Your task to perform on an android device: toggle location history Image 0: 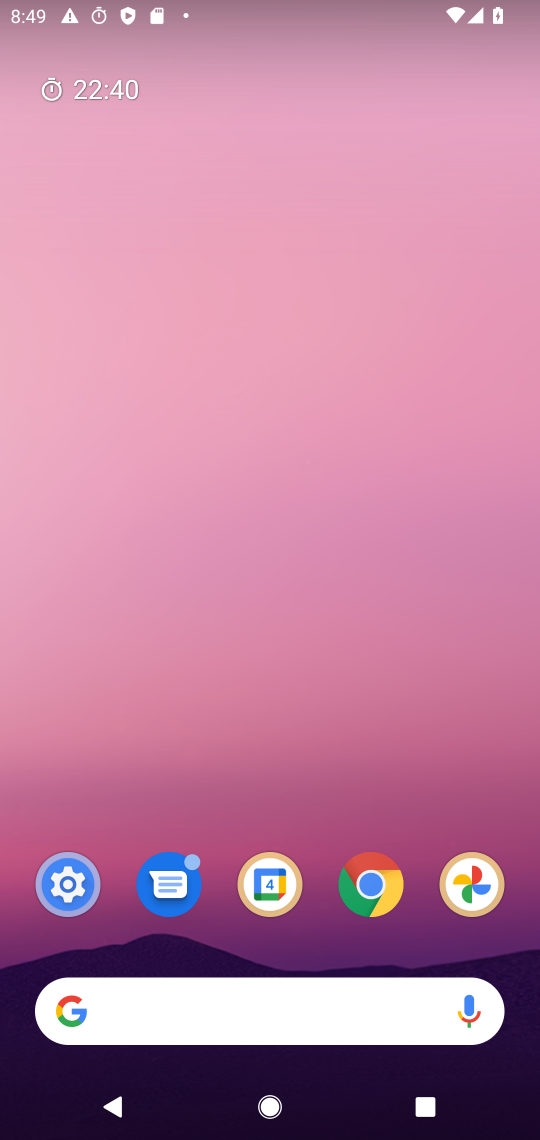
Step 0: drag from (291, 896) to (279, 266)
Your task to perform on an android device: toggle location history Image 1: 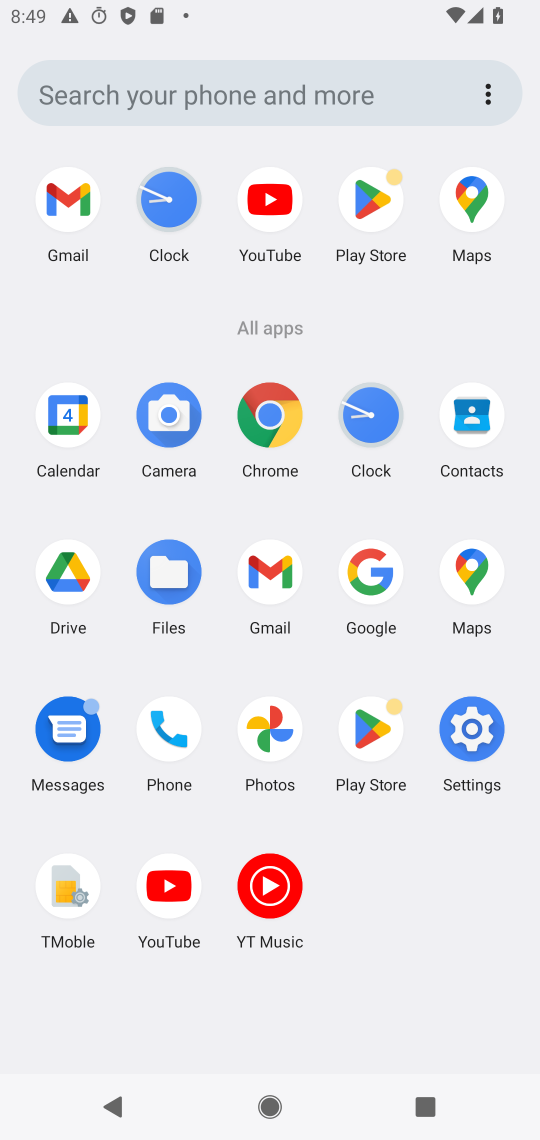
Step 1: click (472, 732)
Your task to perform on an android device: toggle location history Image 2: 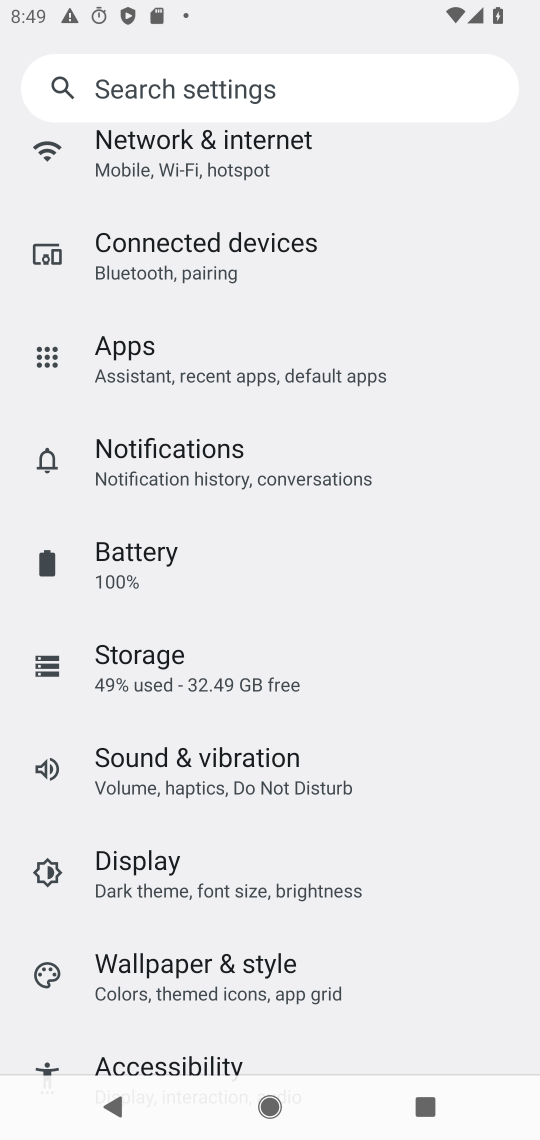
Step 2: drag from (433, 968) to (385, 417)
Your task to perform on an android device: toggle location history Image 3: 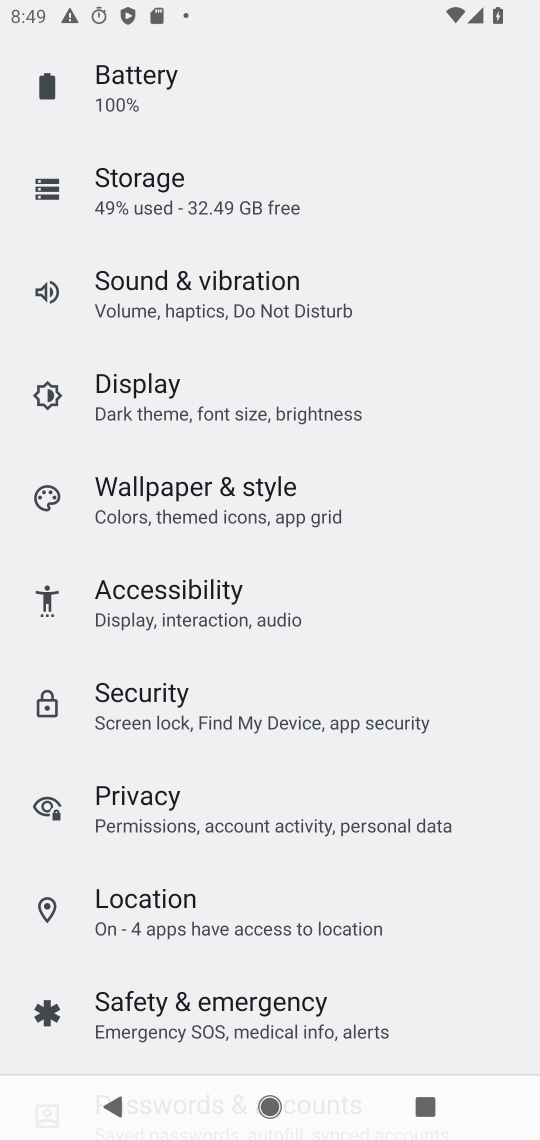
Step 3: click (187, 922)
Your task to perform on an android device: toggle location history Image 4: 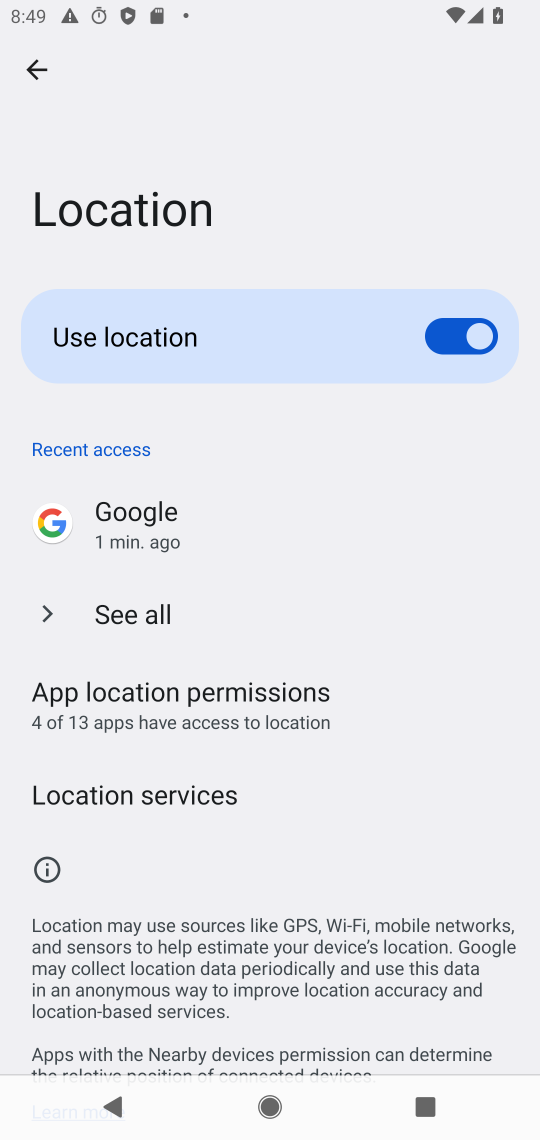
Step 4: click (145, 790)
Your task to perform on an android device: toggle location history Image 5: 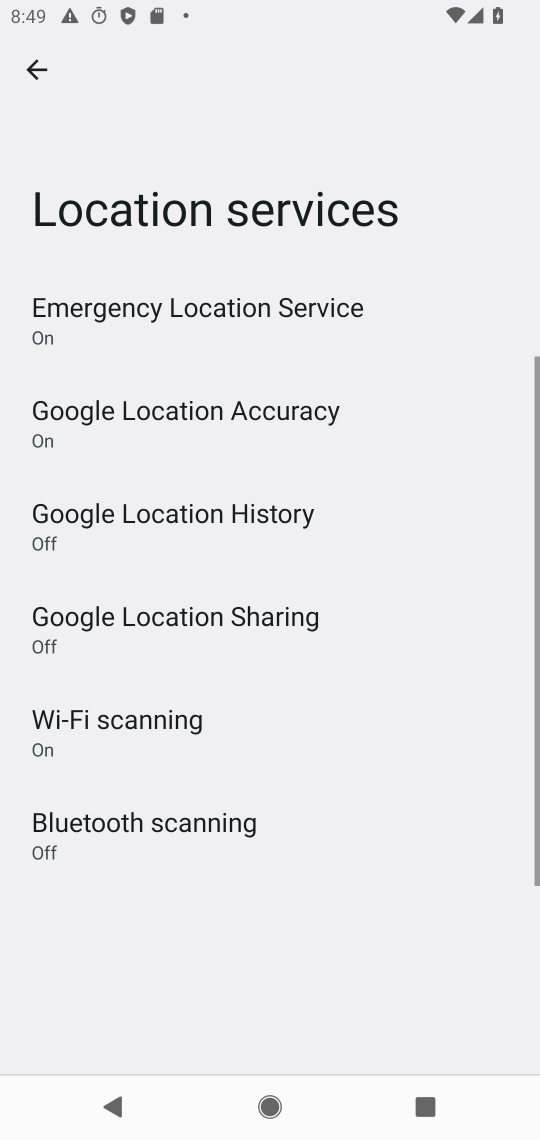
Step 5: click (206, 515)
Your task to perform on an android device: toggle location history Image 6: 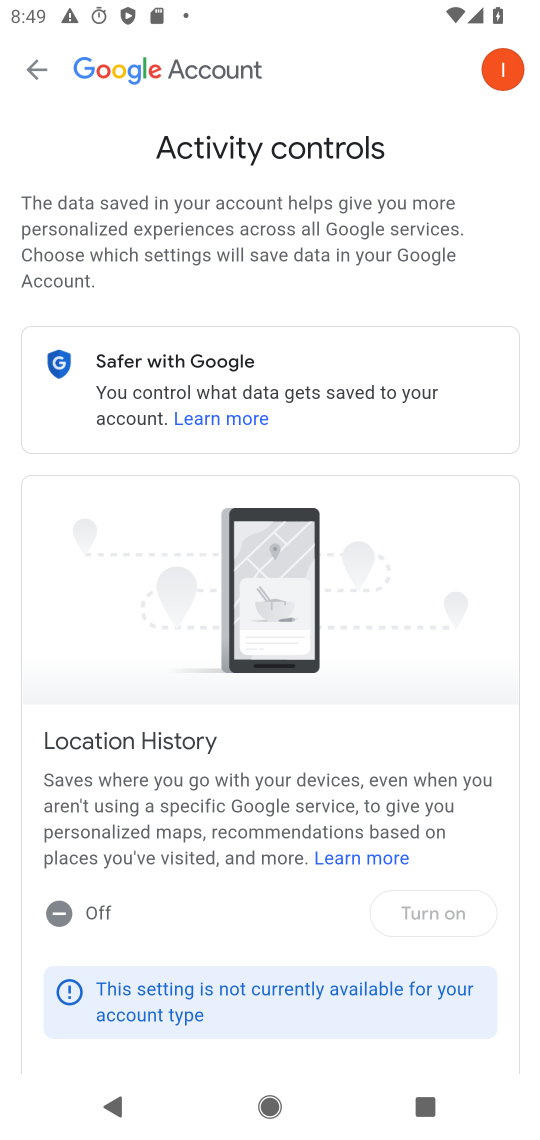
Step 6: click (448, 908)
Your task to perform on an android device: toggle location history Image 7: 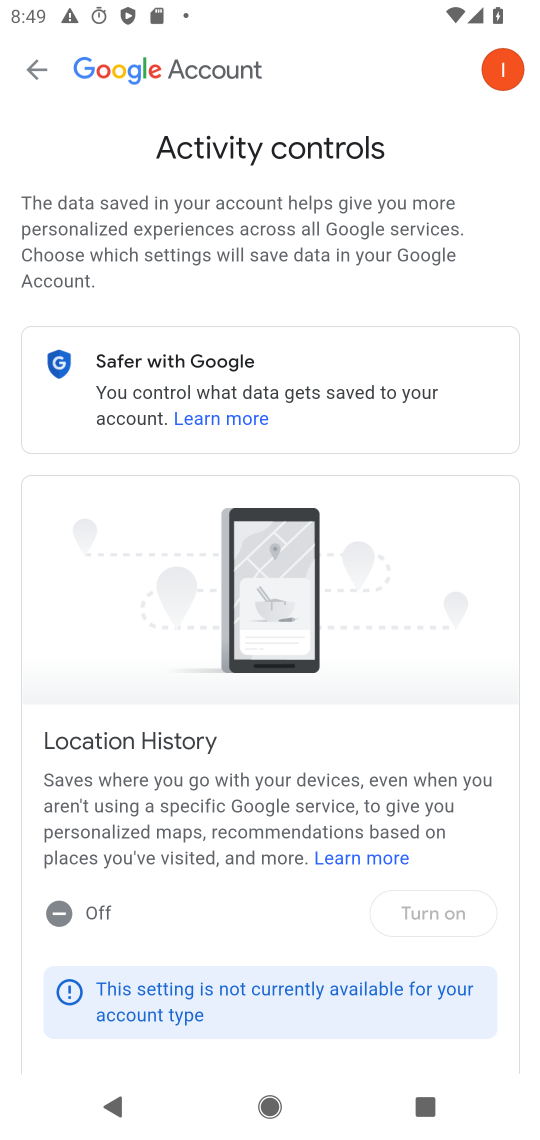
Step 7: task complete